Your task to perform on an android device: turn on translation in the chrome app Image 0: 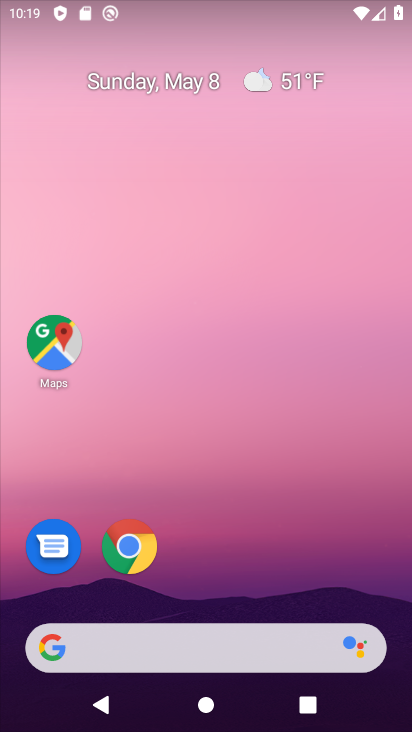
Step 0: click (128, 548)
Your task to perform on an android device: turn on translation in the chrome app Image 1: 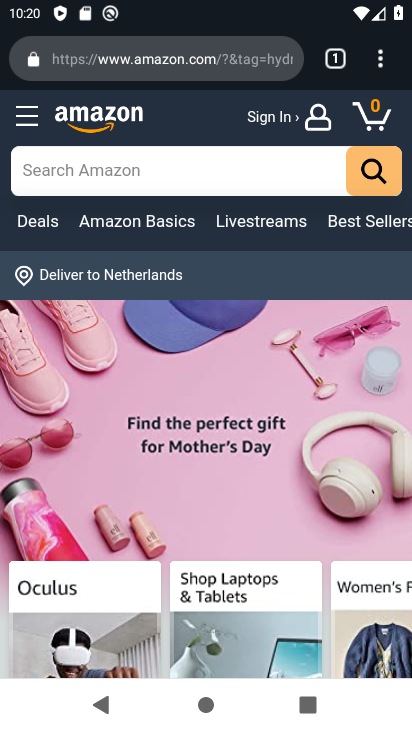
Step 1: click (380, 65)
Your task to perform on an android device: turn on translation in the chrome app Image 2: 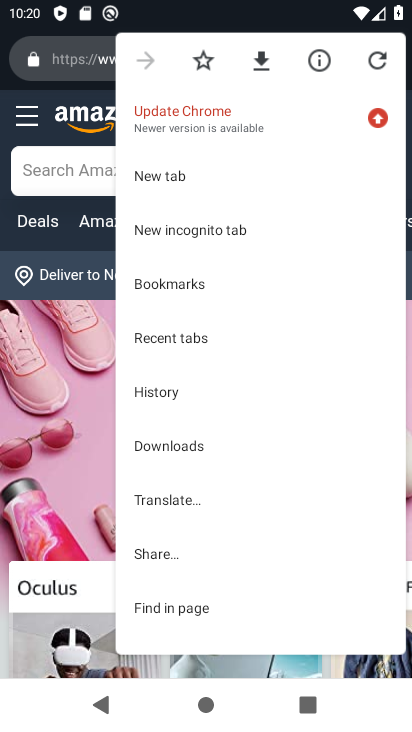
Step 2: drag from (216, 562) to (229, 410)
Your task to perform on an android device: turn on translation in the chrome app Image 3: 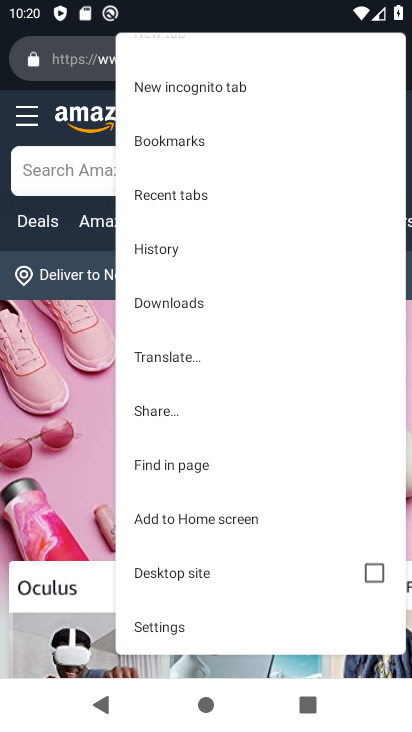
Step 3: click (158, 625)
Your task to perform on an android device: turn on translation in the chrome app Image 4: 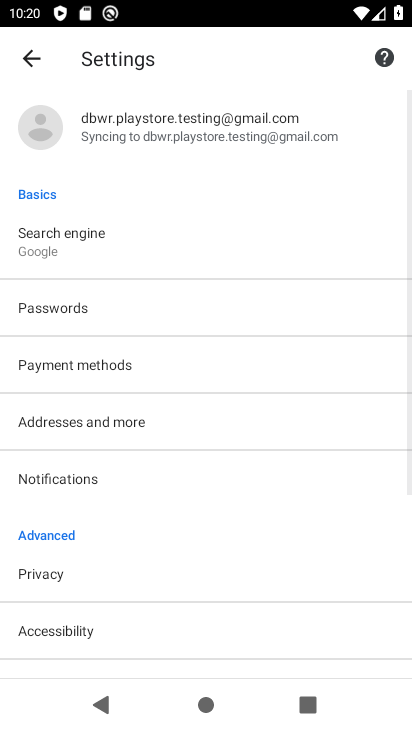
Step 4: drag from (130, 535) to (146, 446)
Your task to perform on an android device: turn on translation in the chrome app Image 5: 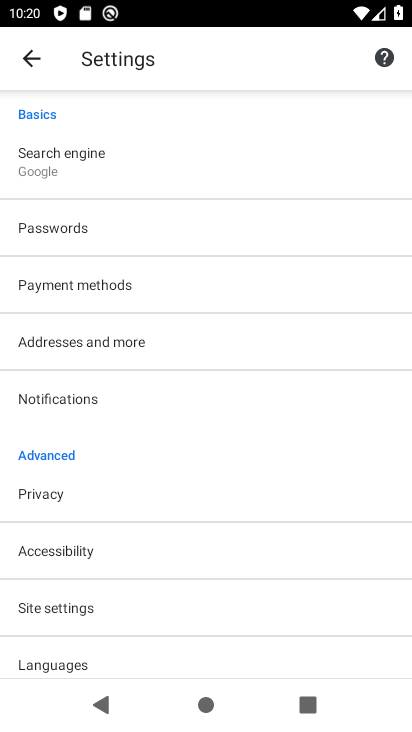
Step 5: drag from (146, 597) to (169, 476)
Your task to perform on an android device: turn on translation in the chrome app Image 6: 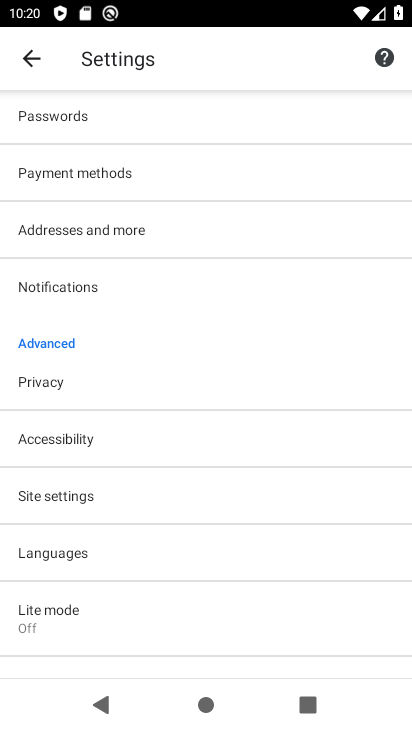
Step 6: click (67, 557)
Your task to perform on an android device: turn on translation in the chrome app Image 7: 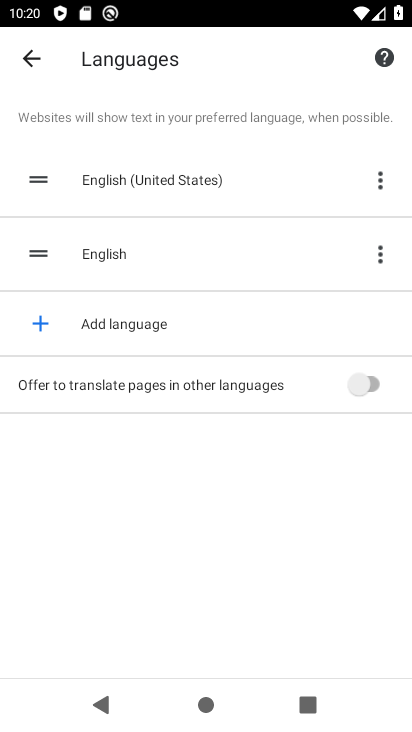
Step 7: click (372, 386)
Your task to perform on an android device: turn on translation in the chrome app Image 8: 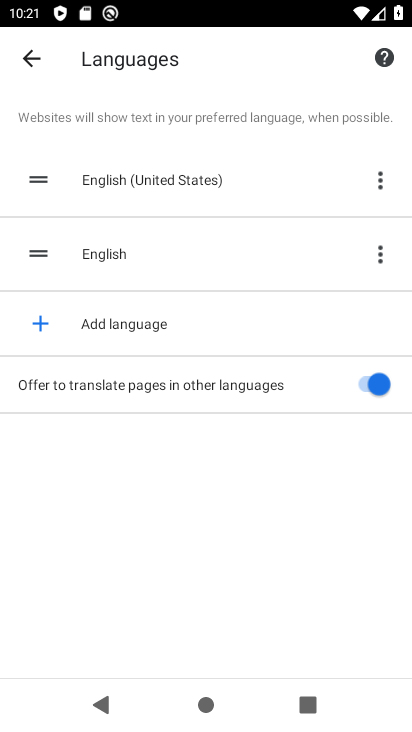
Step 8: task complete